Your task to perform on an android device: turn pop-ups off in chrome Image 0: 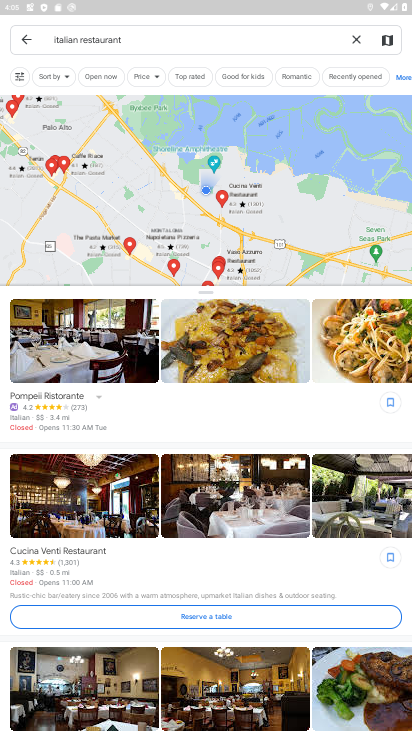
Step 0: click (28, 33)
Your task to perform on an android device: turn pop-ups off in chrome Image 1: 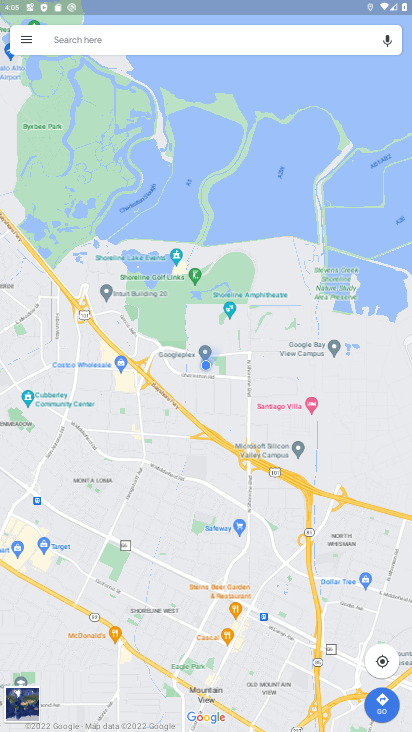
Step 1: press home button
Your task to perform on an android device: turn pop-ups off in chrome Image 2: 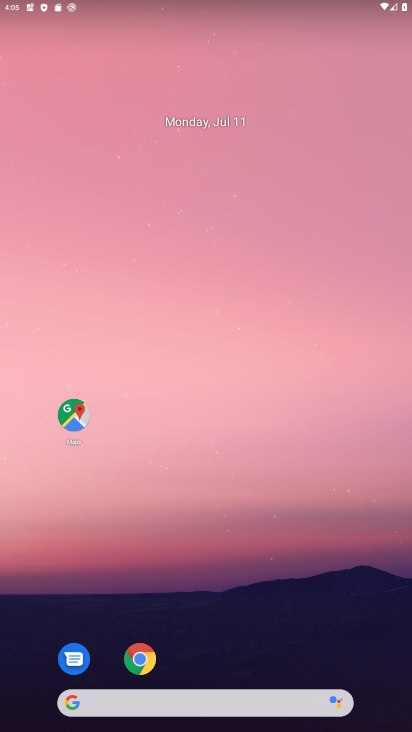
Step 2: click (141, 664)
Your task to perform on an android device: turn pop-ups off in chrome Image 3: 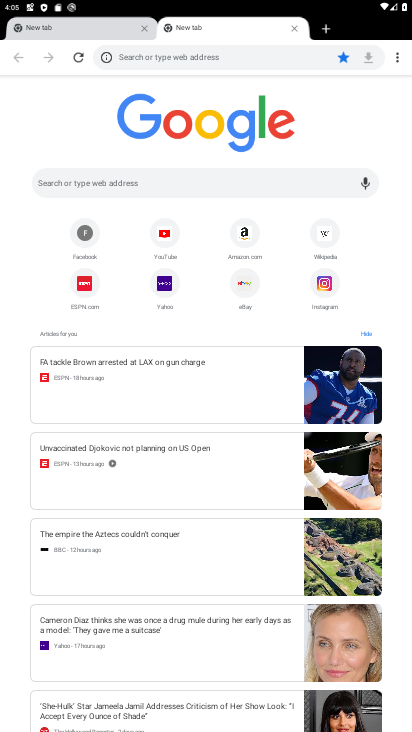
Step 3: click (400, 63)
Your task to perform on an android device: turn pop-ups off in chrome Image 4: 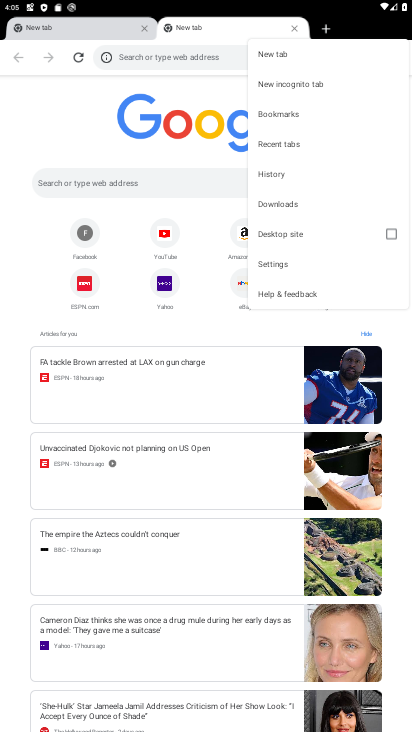
Step 4: click (280, 262)
Your task to perform on an android device: turn pop-ups off in chrome Image 5: 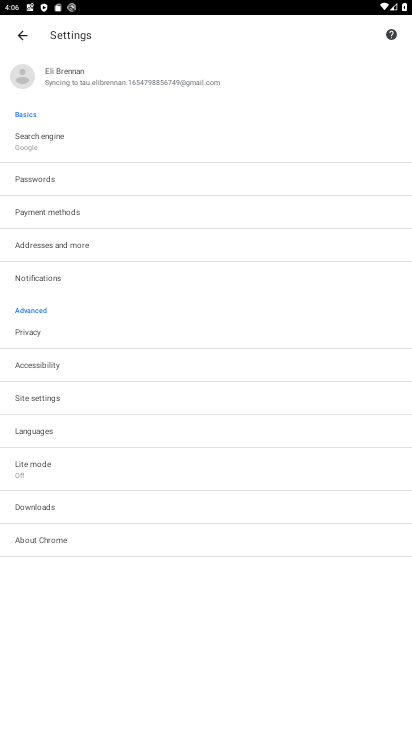
Step 5: click (44, 404)
Your task to perform on an android device: turn pop-ups off in chrome Image 6: 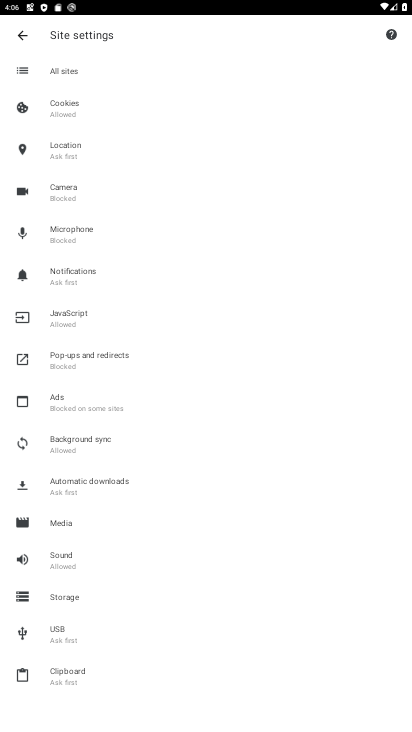
Step 6: click (85, 371)
Your task to perform on an android device: turn pop-ups off in chrome Image 7: 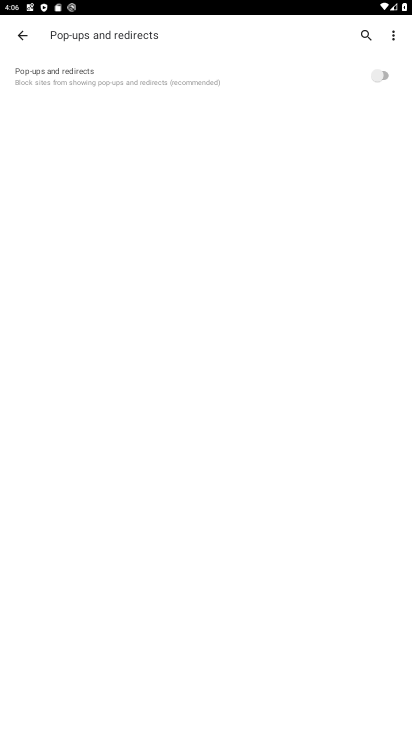
Step 7: task complete